Your task to perform on an android device: delete a single message in the gmail app Image 0: 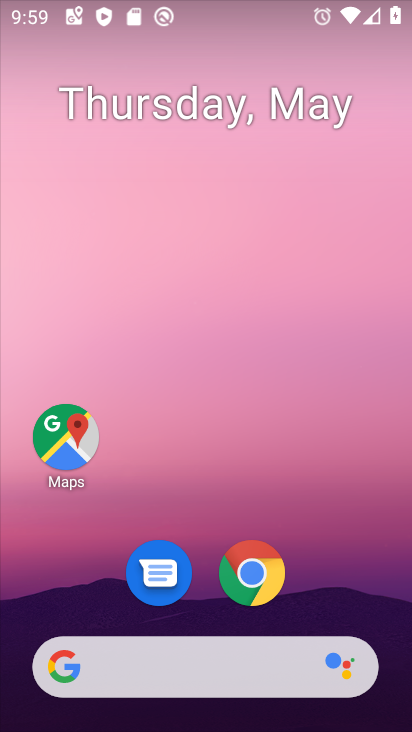
Step 0: click (260, 301)
Your task to perform on an android device: delete a single message in the gmail app Image 1: 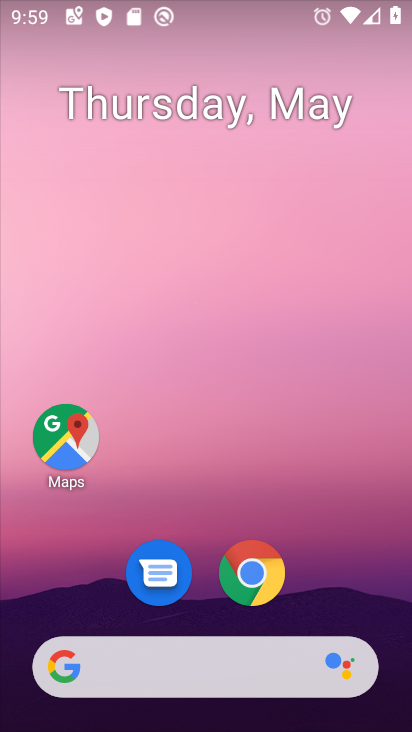
Step 1: drag from (216, 613) to (242, 158)
Your task to perform on an android device: delete a single message in the gmail app Image 2: 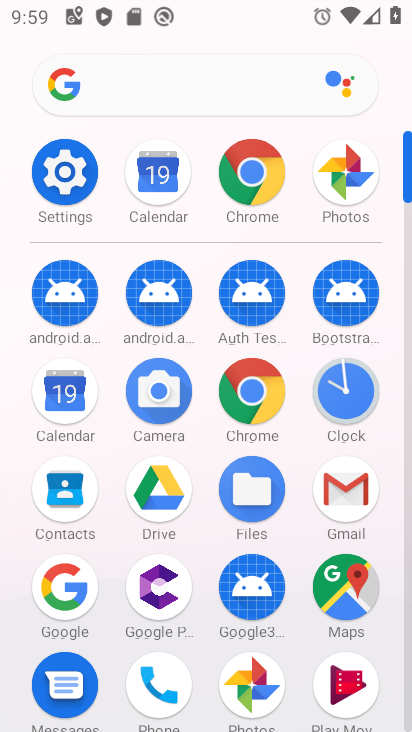
Step 2: click (327, 466)
Your task to perform on an android device: delete a single message in the gmail app Image 3: 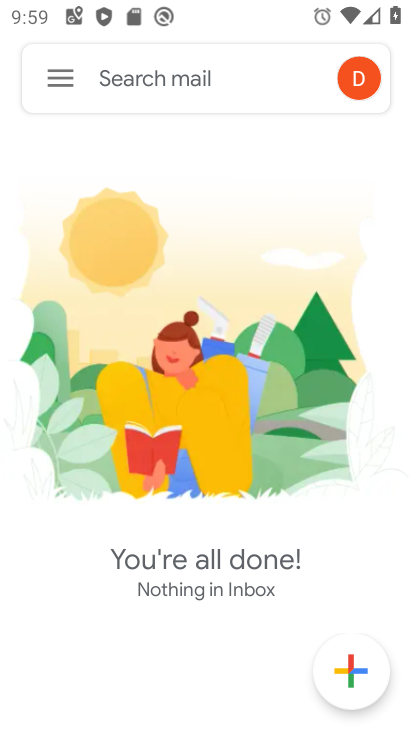
Step 3: click (47, 68)
Your task to perform on an android device: delete a single message in the gmail app Image 4: 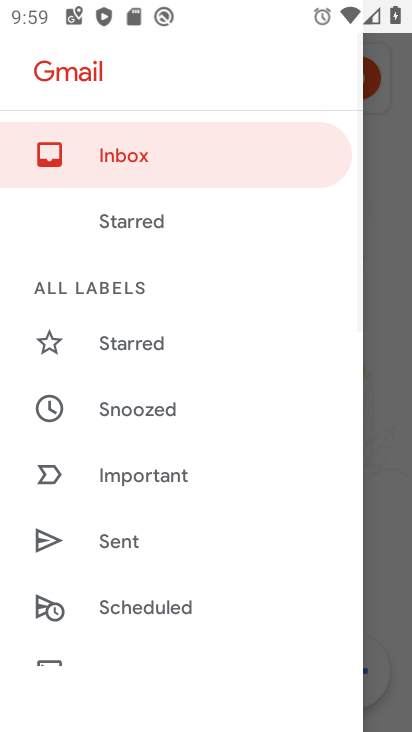
Step 4: drag from (150, 547) to (188, 252)
Your task to perform on an android device: delete a single message in the gmail app Image 5: 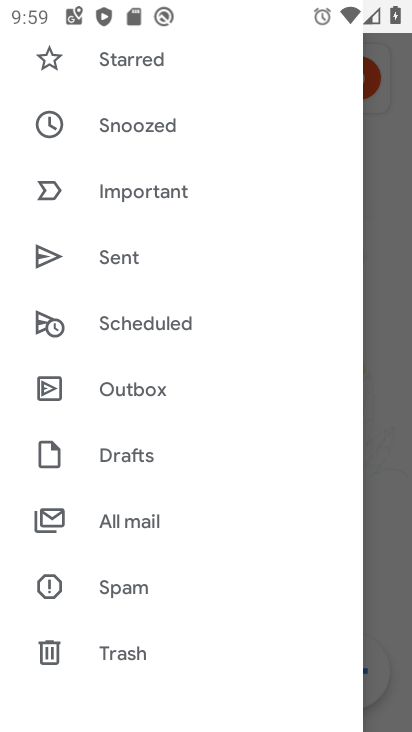
Step 5: click (167, 530)
Your task to perform on an android device: delete a single message in the gmail app Image 6: 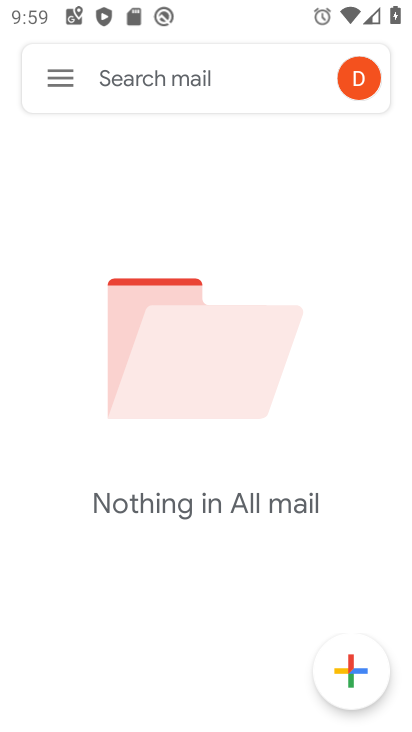
Step 6: task complete